Your task to perform on an android device: check the backup settings in the google photos Image 0: 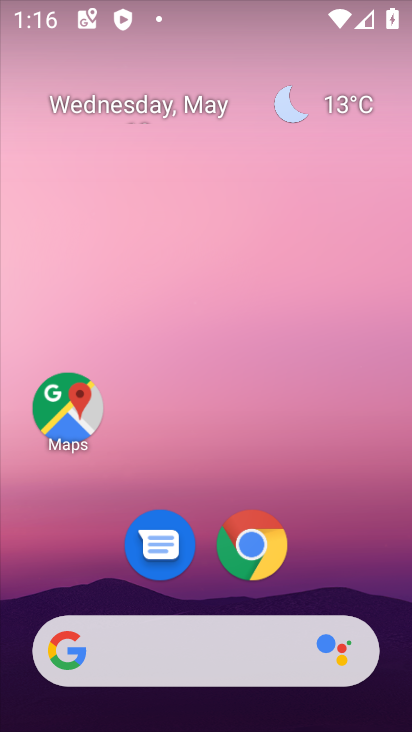
Step 0: drag from (327, 556) to (238, 3)
Your task to perform on an android device: check the backup settings in the google photos Image 1: 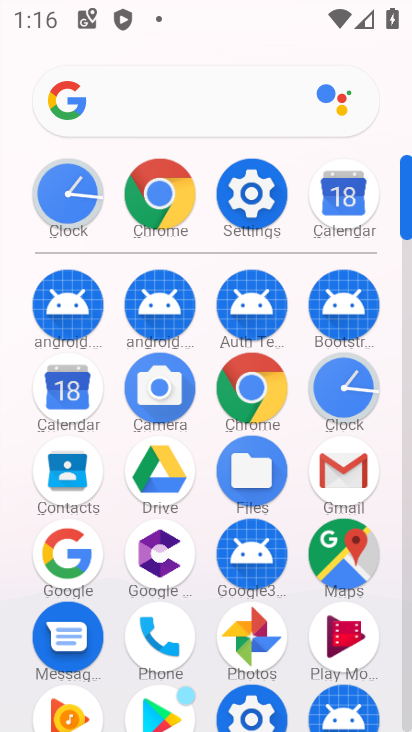
Step 1: click (255, 653)
Your task to perform on an android device: check the backup settings in the google photos Image 2: 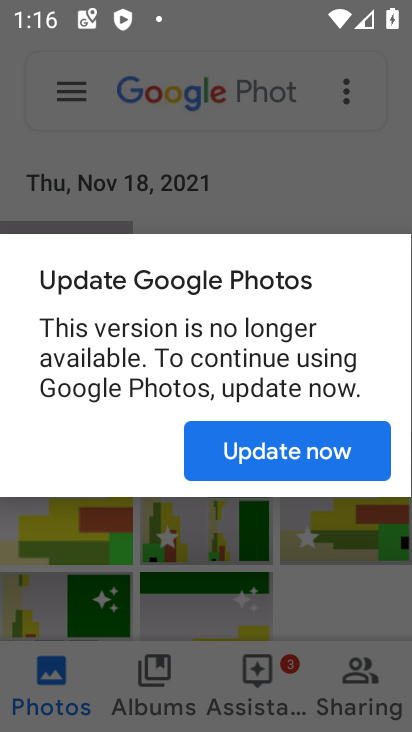
Step 2: click (303, 436)
Your task to perform on an android device: check the backup settings in the google photos Image 3: 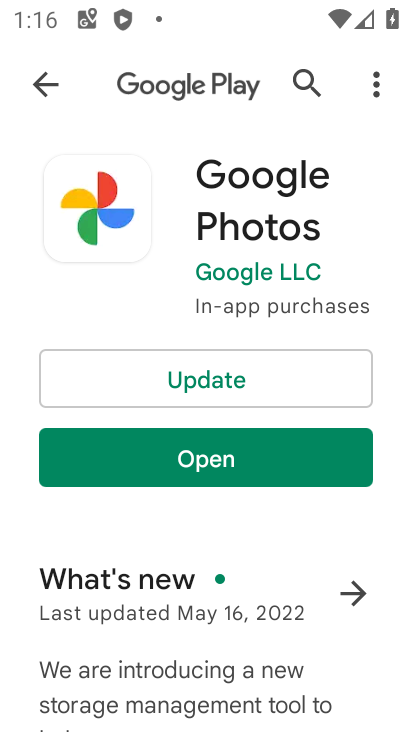
Step 3: click (274, 443)
Your task to perform on an android device: check the backup settings in the google photos Image 4: 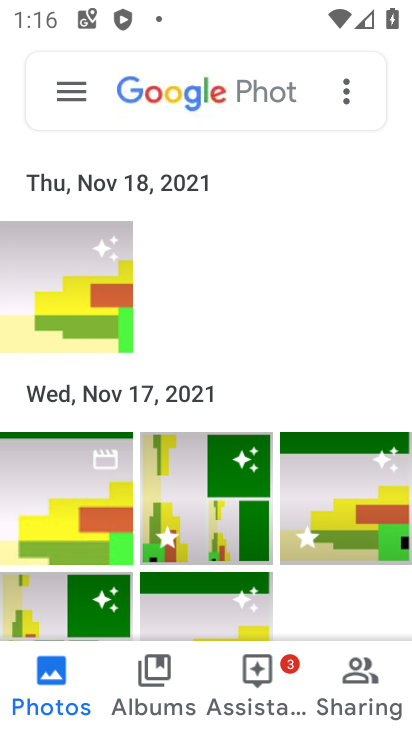
Step 4: click (79, 82)
Your task to perform on an android device: check the backup settings in the google photos Image 5: 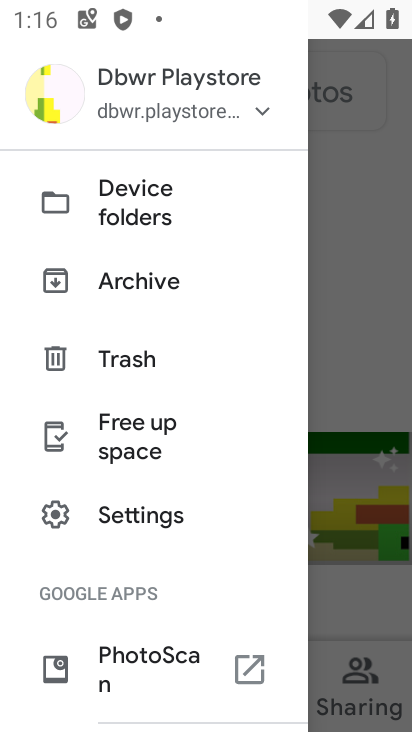
Step 5: click (163, 519)
Your task to perform on an android device: check the backup settings in the google photos Image 6: 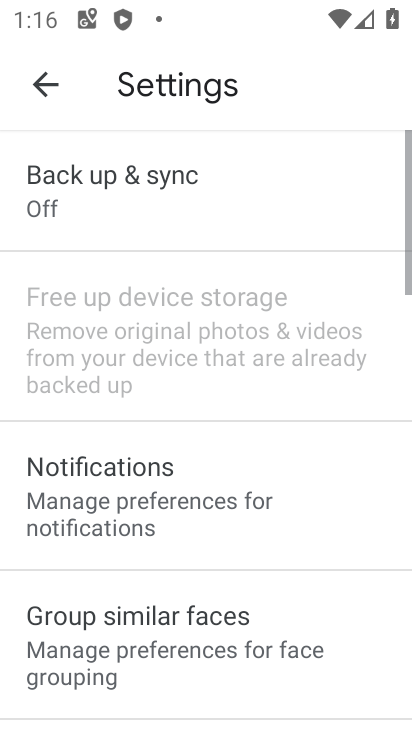
Step 6: click (131, 194)
Your task to perform on an android device: check the backup settings in the google photos Image 7: 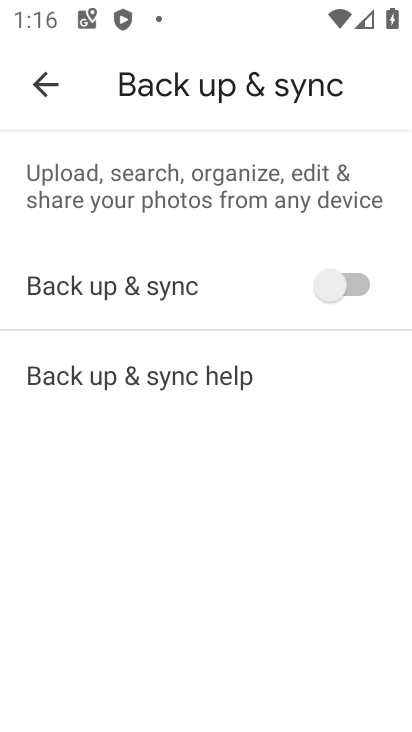
Step 7: task complete